Your task to perform on an android device: Open calendar and show me the third week of next month Image 0: 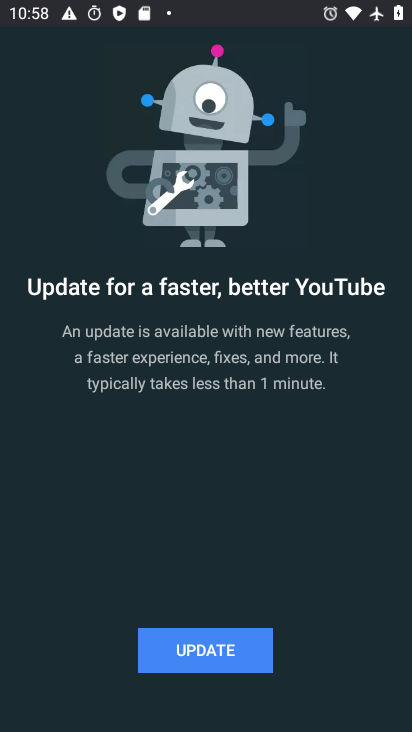
Step 0: press home button
Your task to perform on an android device: Open calendar and show me the third week of next month Image 1: 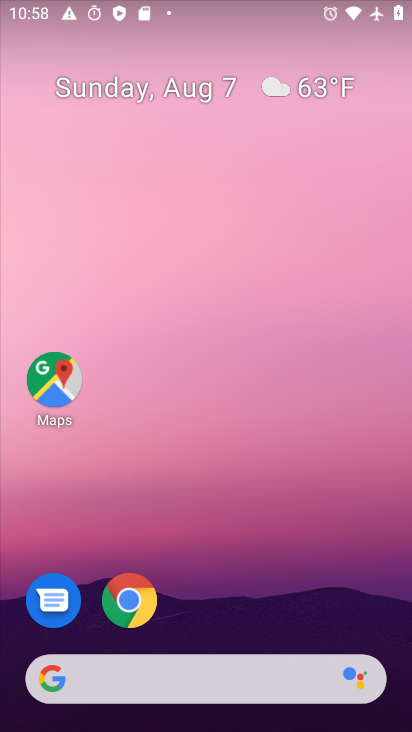
Step 1: drag from (199, 645) to (261, 61)
Your task to perform on an android device: Open calendar and show me the third week of next month Image 2: 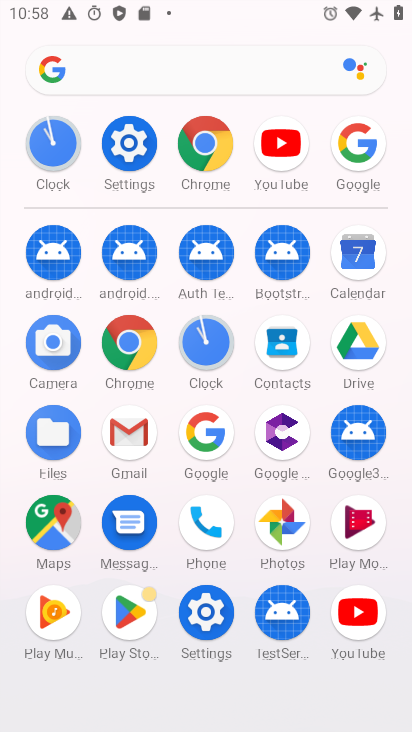
Step 2: click (357, 261)
Your task to perform on an android device: Open calendar and show me the third week of next month Image 3: 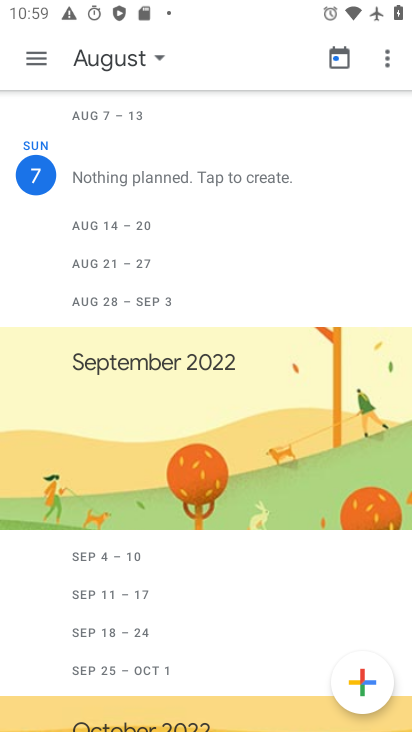
Step 3: click (134, 67)
Your task to perform on an android device: Open calendar and show me the third week of next month Image 4: 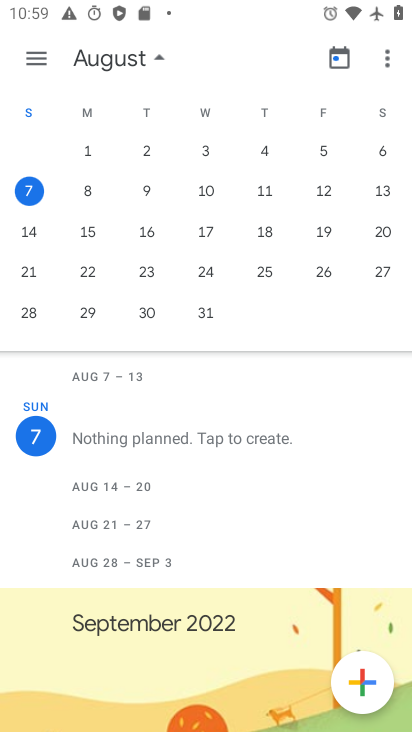
Step 4: drag from (337, 268) to (0, 272)
Your task to perform on an android device: Open calendar and show me the third week of next month Image 5: 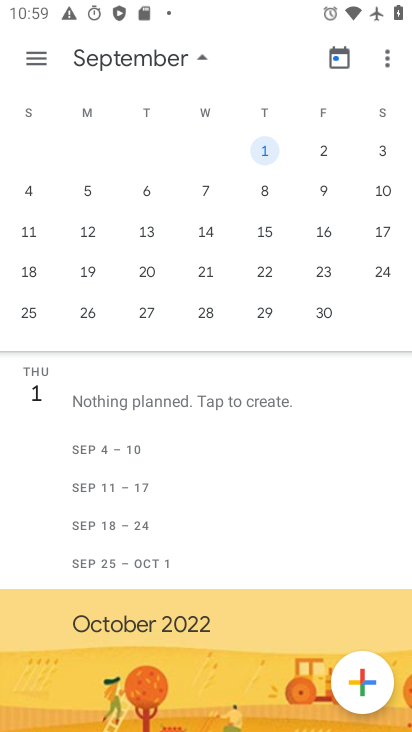
Step 5: click (30, 241)
Your task to perform on an android device: Open calendar and show me the third week of next month Image 6: 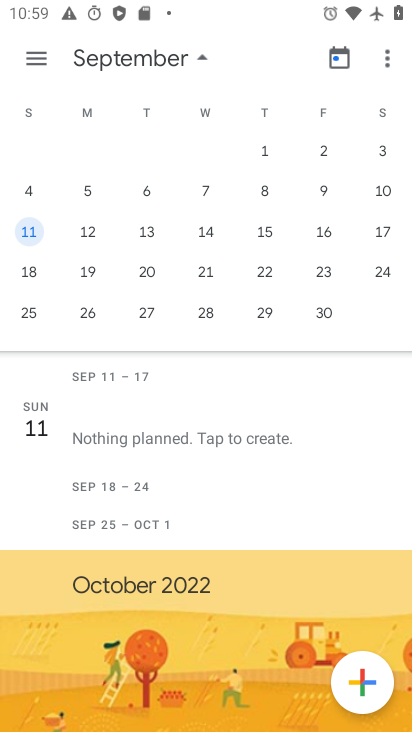
Step 6: task complete